Your task to perform on an android device: find which apps use the phone's location Image 0: 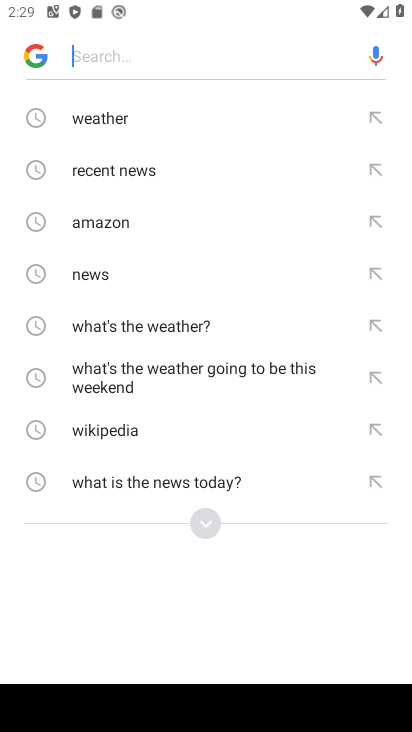
Step 0: press home button
Your task to perform on an android device: find which apps use the phone's location Image 1: 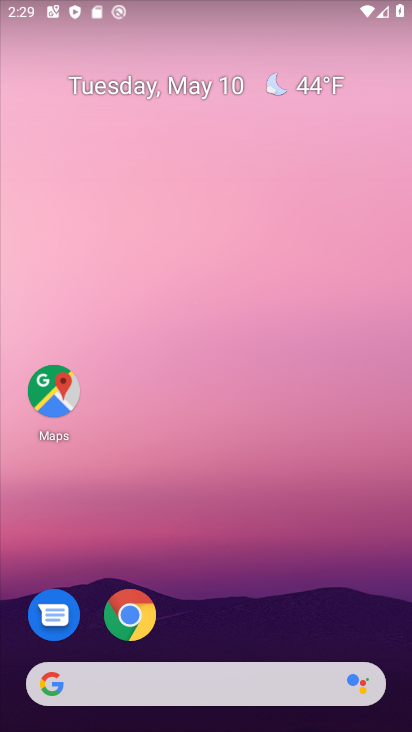
Step 1: drag from (294, 637) to (324, 108)
Your task to perform on an android device: find which apps use the phone's location Image 2: 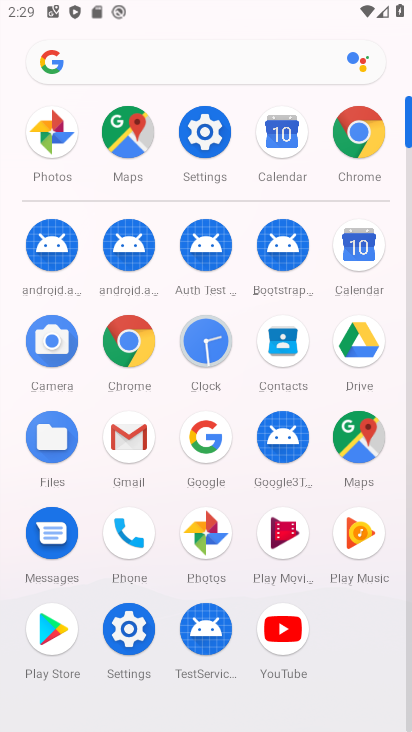
Step 2: click (127, 523)
Your task to perform on an android device: find which apps use the phone's location Image 3: 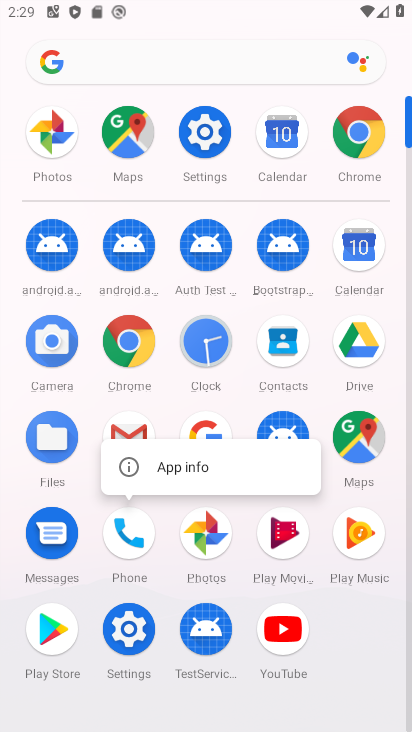
Step 3: click (123, 462)
Your task to perform on an android device: find which apps use the phone's location Image 4: 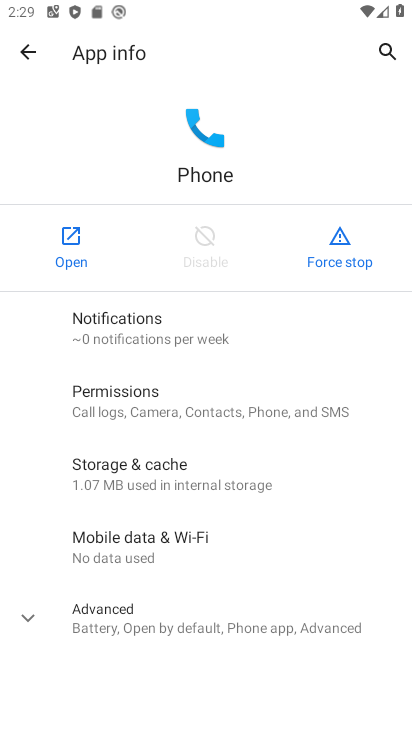
Step 4: drag from (213, 584) to (231, 278)
Your task to perform on an android device: find which apps use the phone's location Image 5: 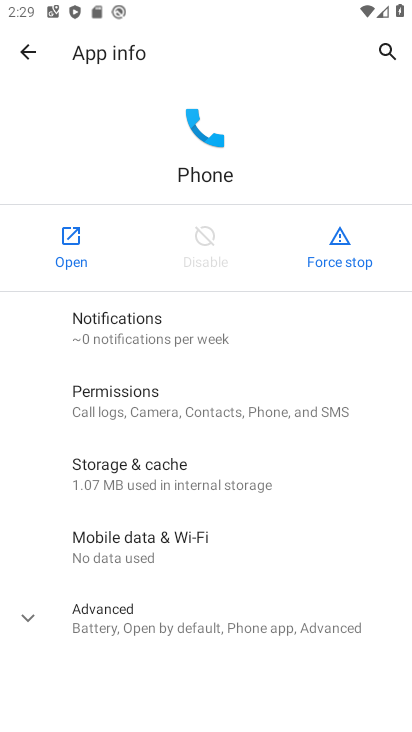
Step 5: click (168, 403)
Your task to perform on an android device: find which apps use the phone's location Image 6: 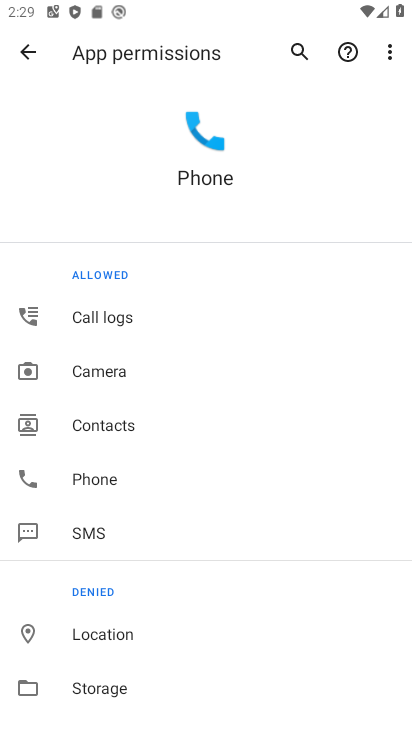
Step 6: drag from (125, 529) to (153, 300)
Your task to perform on an android device: find which apps use the phone's location Image 7: 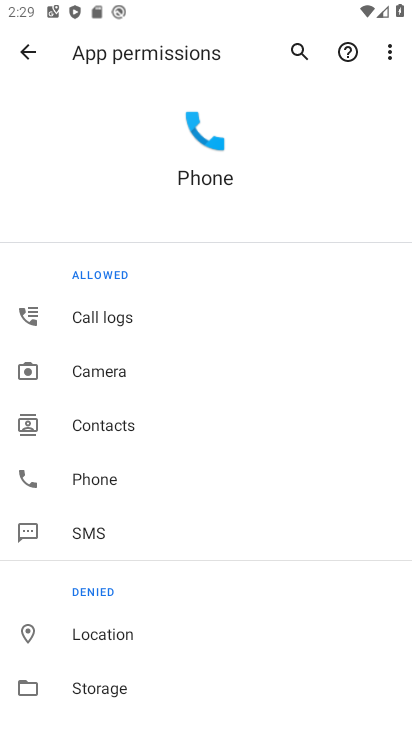
Step 7: click (99, 626)
Your task to perform on an android device: find which apps use the phone's location Image 8: 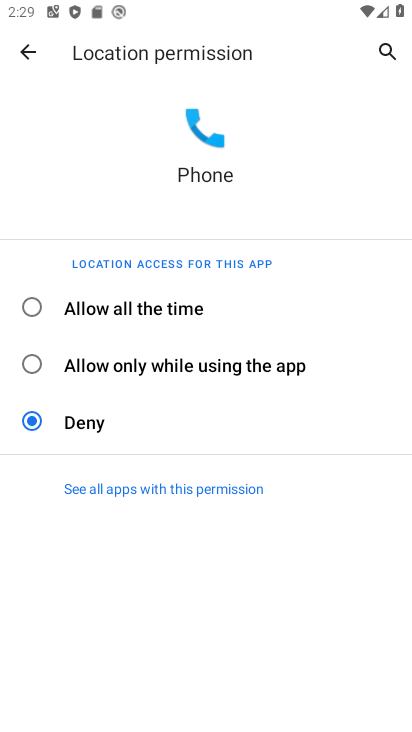
Step 8: task complete